Your task to perform on an android device: Go to notification settings Image 0: 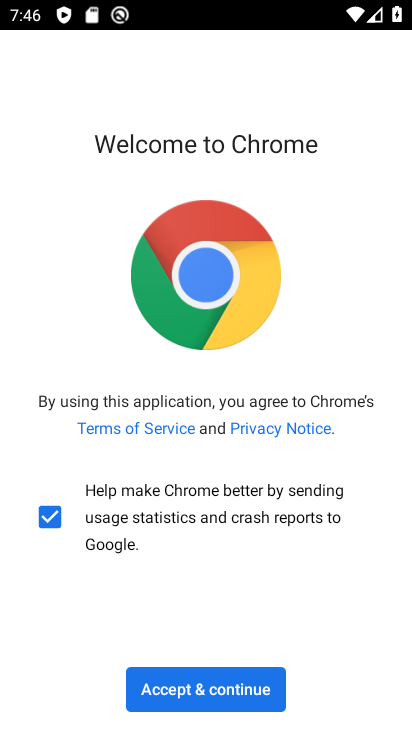
Step 0: press home button
Your task to perform on an android device: Go to notification settings Image 1: 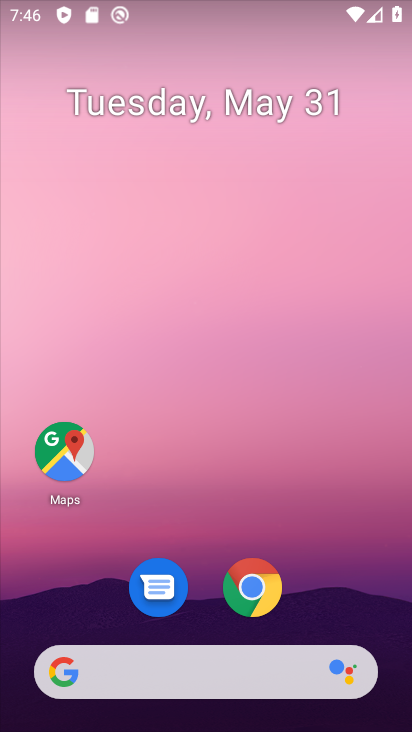
Step 1: drag from (207, 607) to (260, 20)
Your task to perform on an android device: Go to notification settings Image 2: 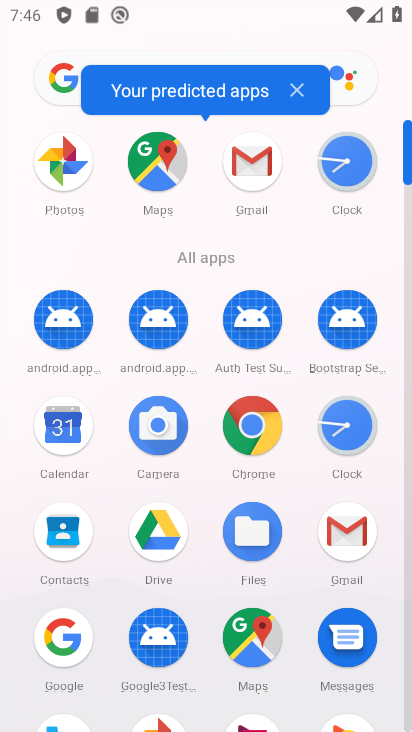
Step 2: drag from (222, 531) to (198, 10)
Your task to perform on an android device: Go to notification settings Image 3: 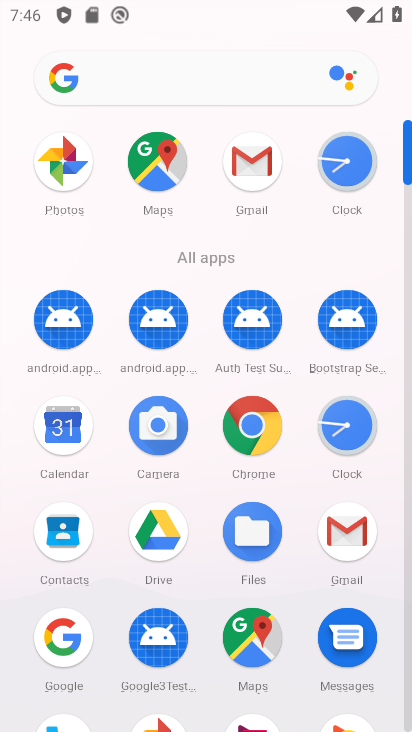
Step 3: drag from (252, 377) to (274, 45)
Your task to perform on an android device: Go to notification settings Image 4: 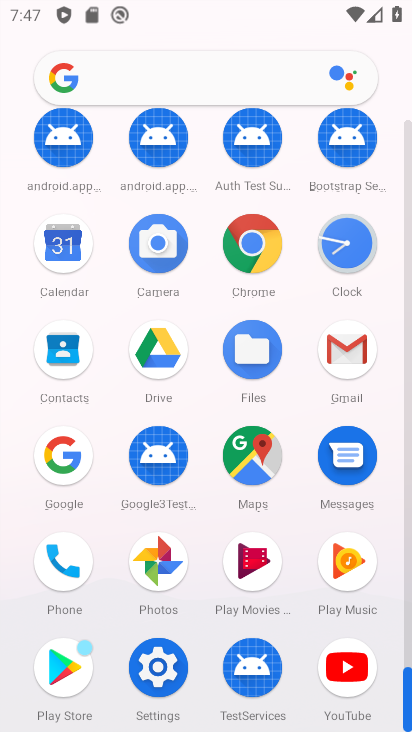
Step 4: click (166, 646)
Your task to perform on an android device: Go to notification settings Image 5: 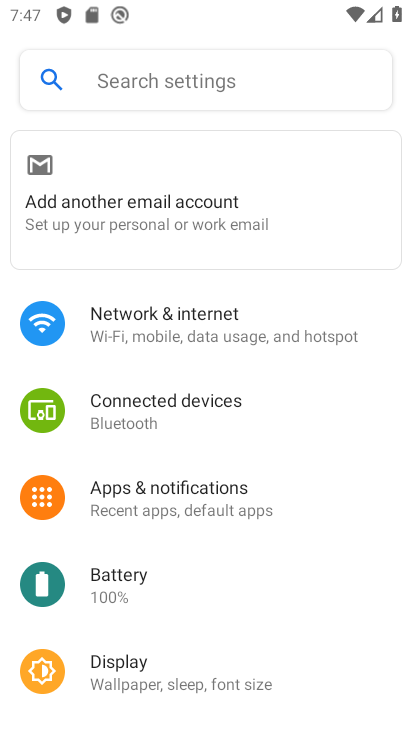
Step 5: click (173, 473)
Your task to perform on an android device: Go to notification settings Image 6: 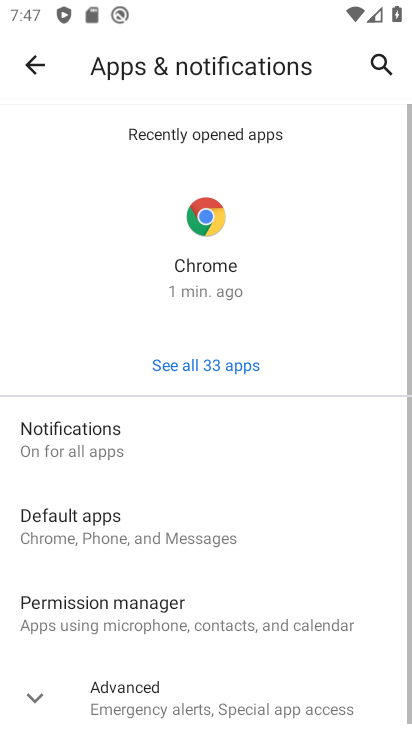
Step 6: task complete